Your task to perform on an android device: toggle airplane mode Image 0: 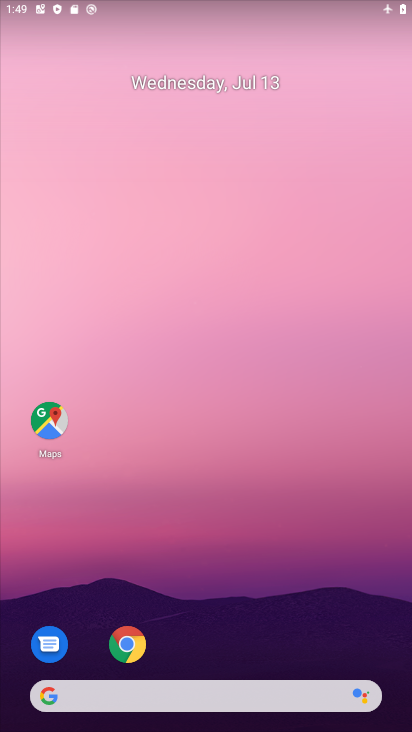
Step 0: drag from (289, 380) to (266, 0)
Your task to perform on an android device: toggle airplane mode Image 1: 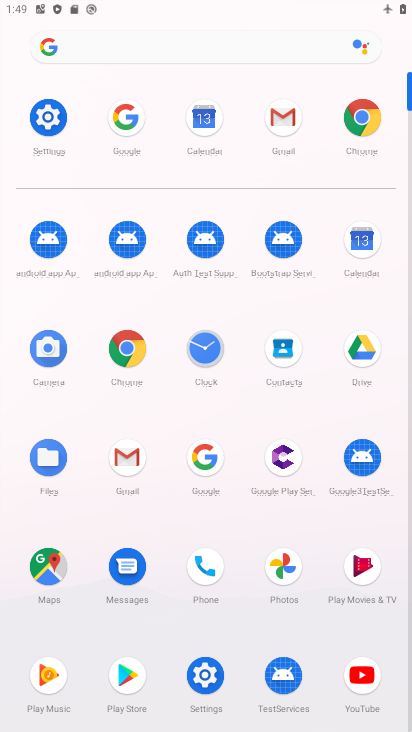
Step 1: click (47, 118)
Your task to perform on an android device: toggle airplane mode Image 2: 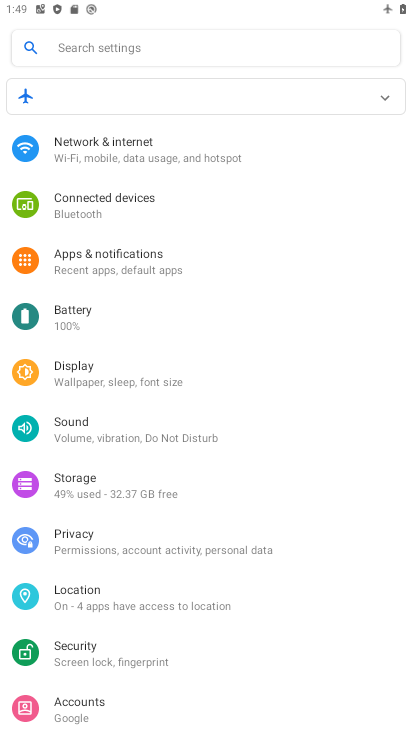
Step 2: click (94, 150)
Your task to perform on an android device: toggle airplane mode Image 3: 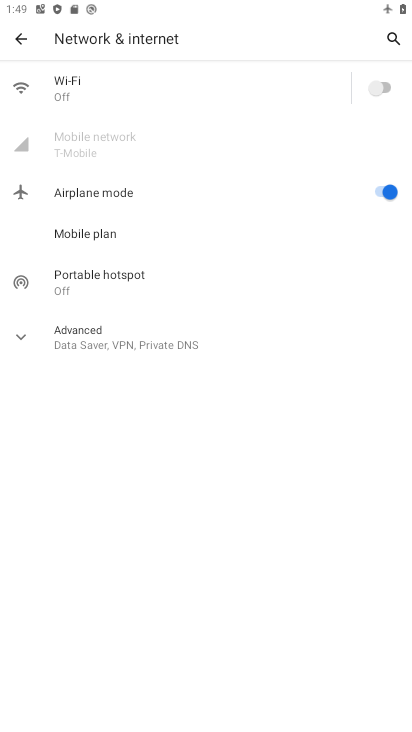
Step 3: click (377, 191)
Your task to perform on an android device: toggle airplane mode Image 4: 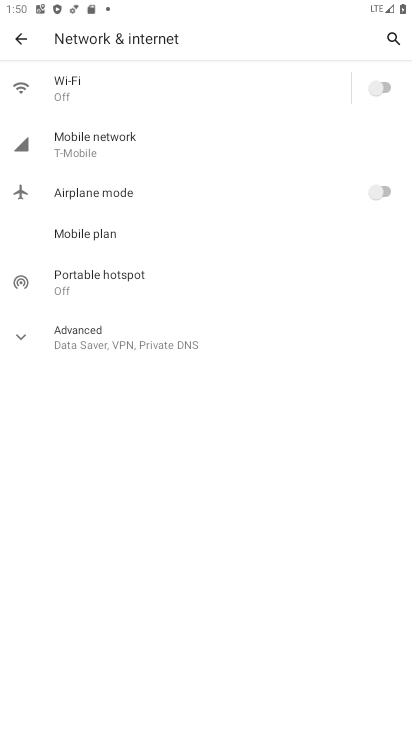
Step 4: task complete